Your task to perform on an android device: What's the weather going to be tomorrow? Image 0: 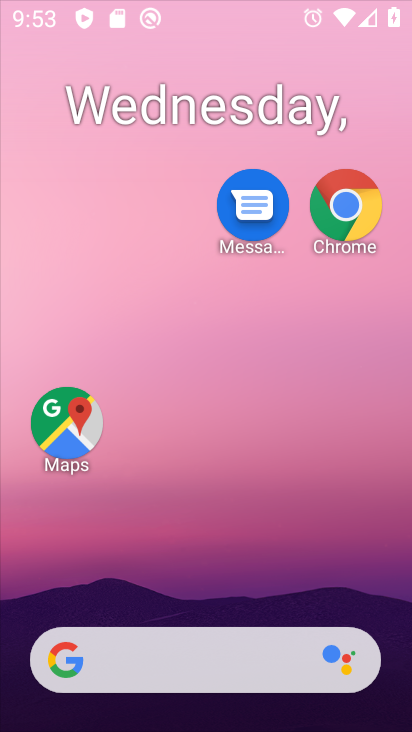
Step 0: drag from (403, 204) to (411, 377)
Your task to perform on an android device: What's the weather going to be tomorrow? Image 1: 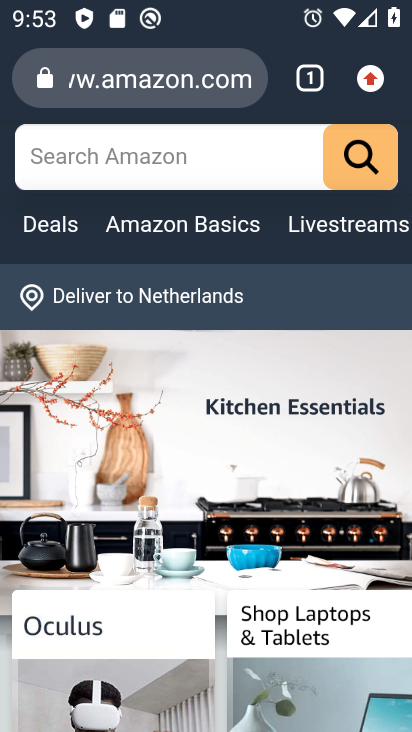
Step 1: drag from (185, 597) to (113, 47)
Your task to perform on an android device: What's the weather going to be tomorrow? Image 2: 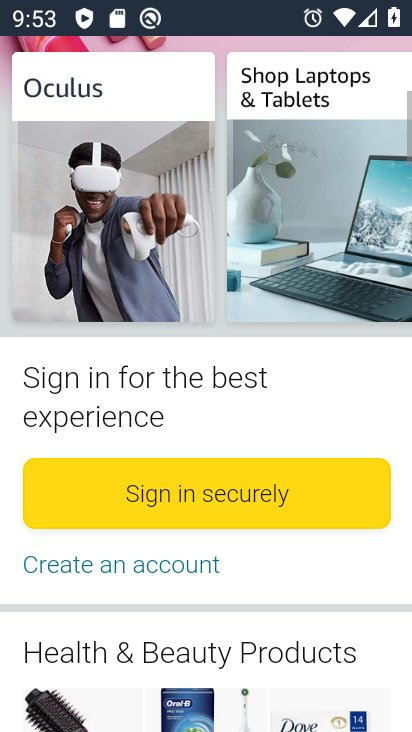
Step 2: drag from (168, 596) to (344, 78)
Your task to perform on an android device: What's the weather going to be tomorrow? Image 3: 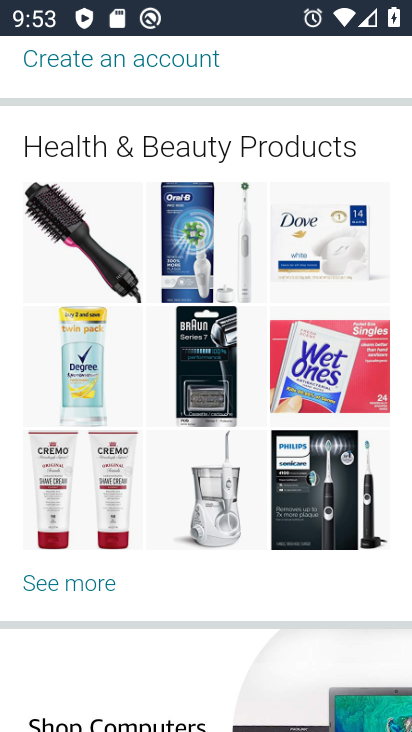
Step 3: drag from (169, 607) to (364, 128)
Your task to perform on an android device: What's the weather going to be tomorrow? Image 4: 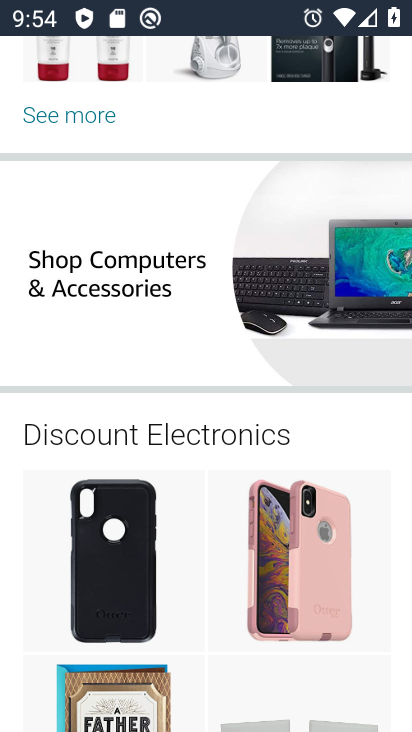
Step 4: drag from (234, 228) to (246, 531)
Your task to perform on an android device: What's the weather going to be tomorrow? Image 5: 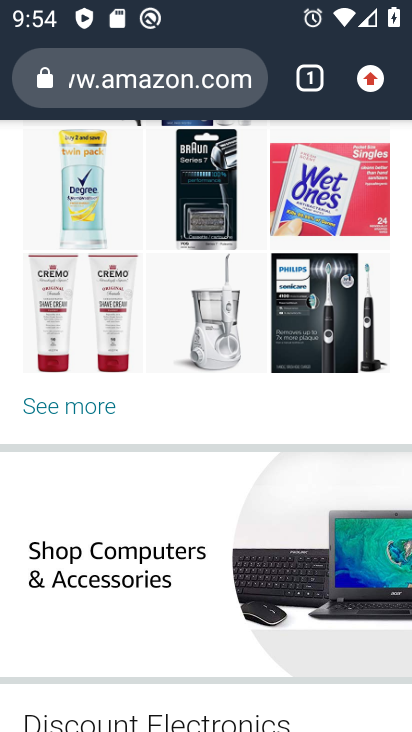
Step 5: click (129, 78)
Your task to perform on an android device: What's the weather going to be tomorrow? Image 6: 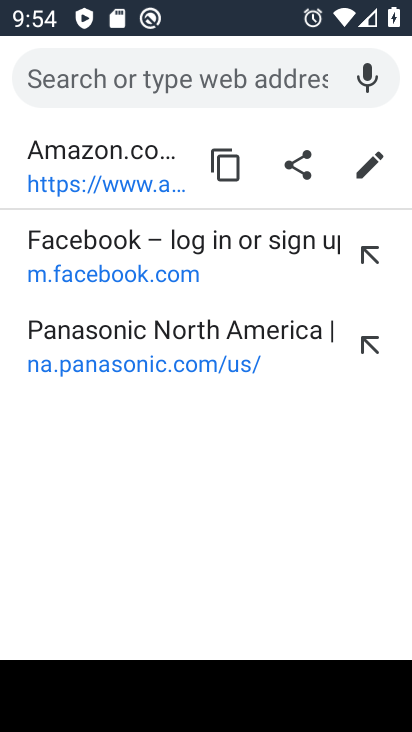
Step 6: type "weather tomorrow"
Your task to perform on an android device: What's the weather going to be tomorrow? Image 7: 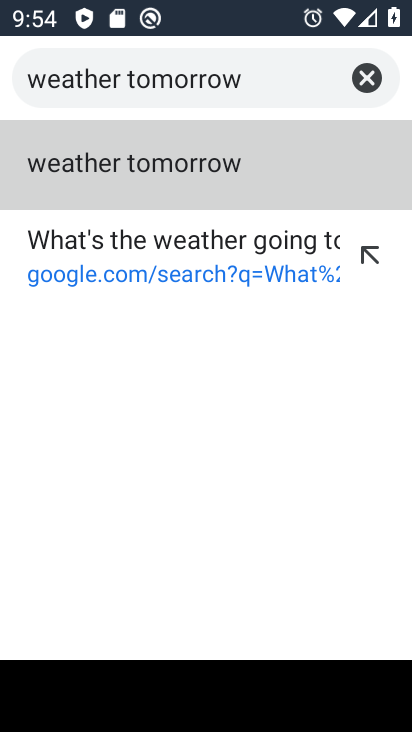
Step 7: click (109, 177)
Your task to perform on an android device: What's the weather going to be tomorrow? Image 8: 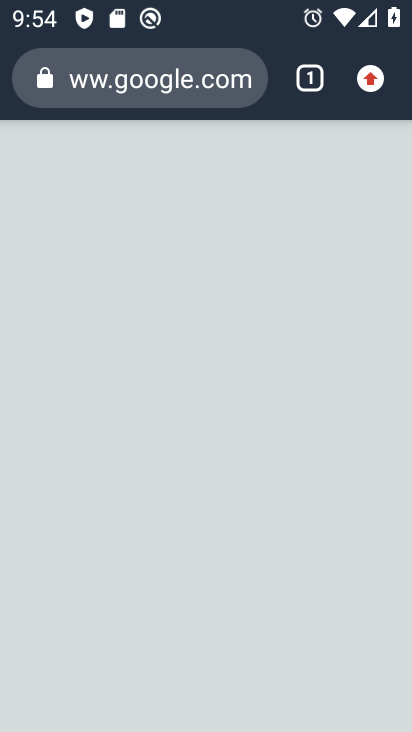
Step 8: task complete